Your task to perform on an android device: turn on wifi Image 0: 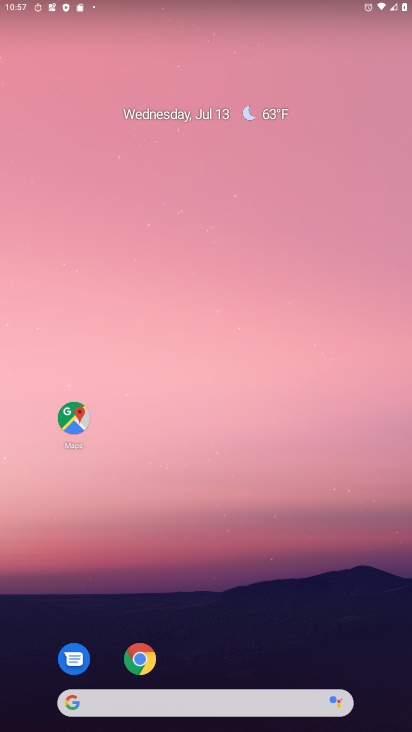
Step 0: drag from (289, 578) to (214, 102)
Your task to perform on an android device: turn on wifi Image 1: 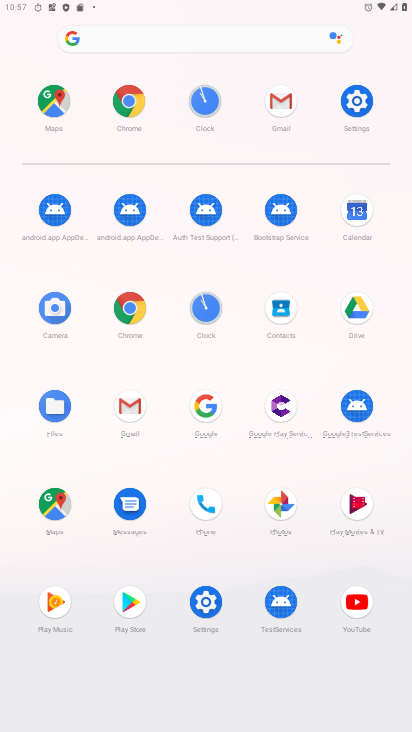
Step 1: click (357, 99)
Your task to perform on an android device: turn on wifi Image 2: 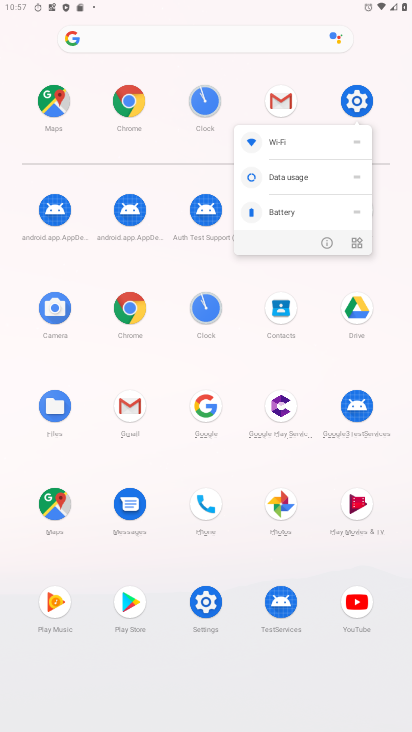
Step 2: click (357, 99)
Your task to perform on an android device: turn on wifi Image 3: 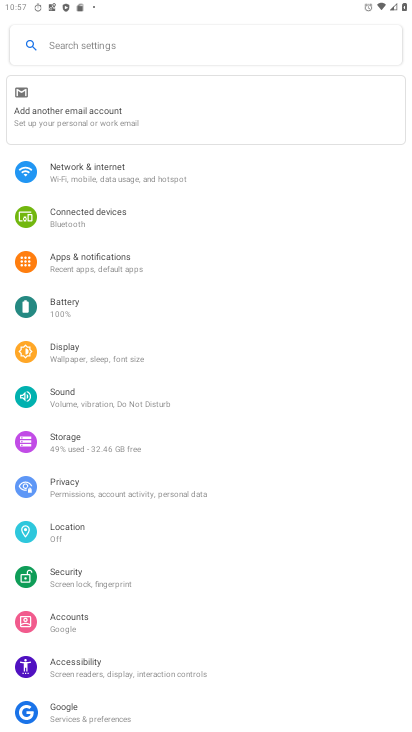
Step 3: click (106, 172)
Your task to perform on an android device: turn on wifi Image 4: 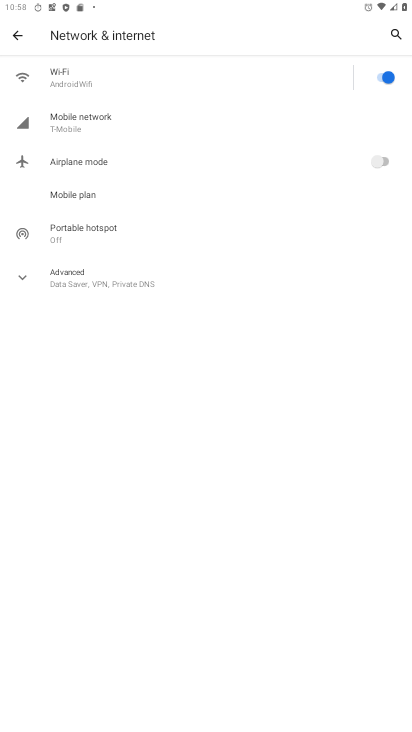
Step 4: task complete